Your task to perform on an android device: check battery use Image 0: 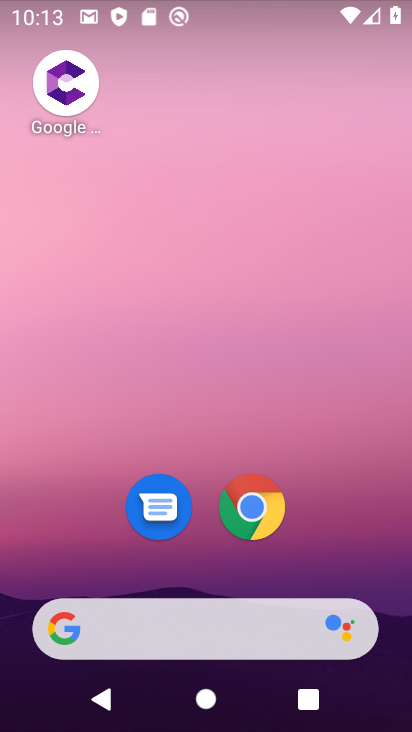
Step 0: drag from (358, 560) to (347, 131)
Your task to perform on an android device: check battery use Image 1: 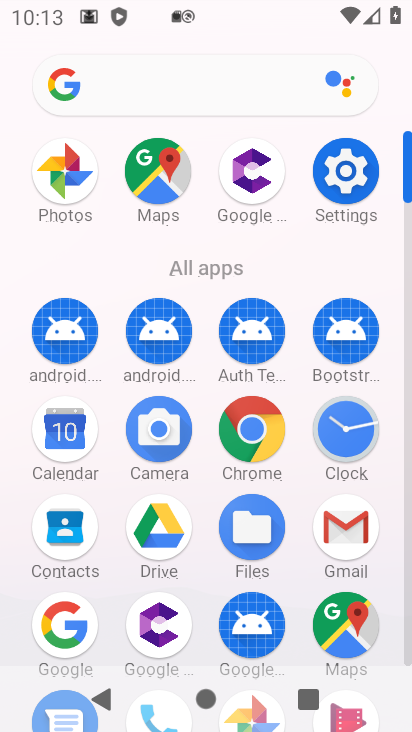
Step 1: click (335, 173)
Your task to perform on an android device: check battery use Image 2: 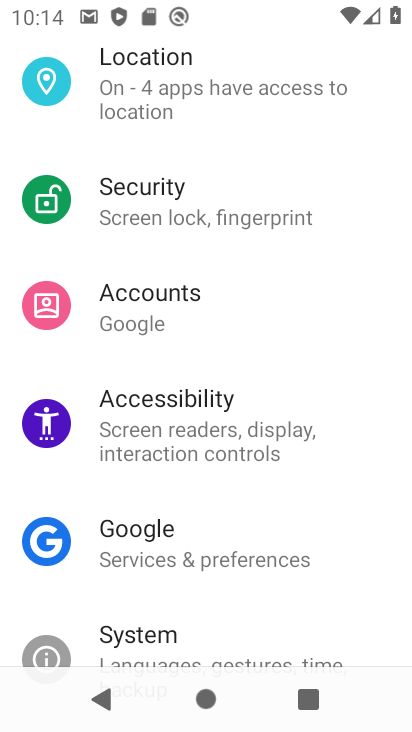
Step 2: drag from (215, 573) to (261, 645)
Your task to perform on an android device: check battery use Image 3: 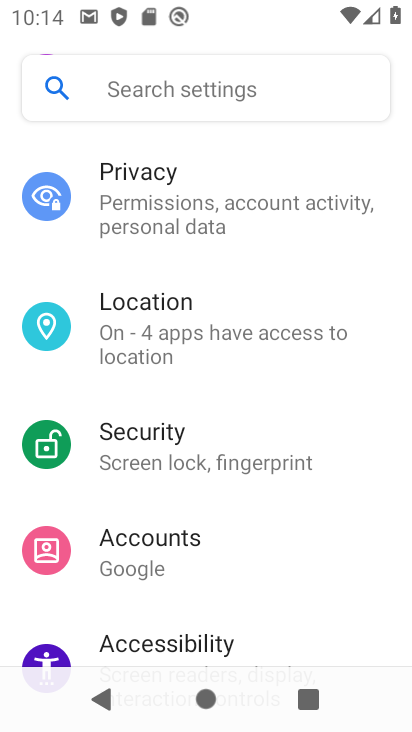
Step 3: drag from (183, 269) to (186, 595)
Your task to perform on an android device: check battery use Image 4: 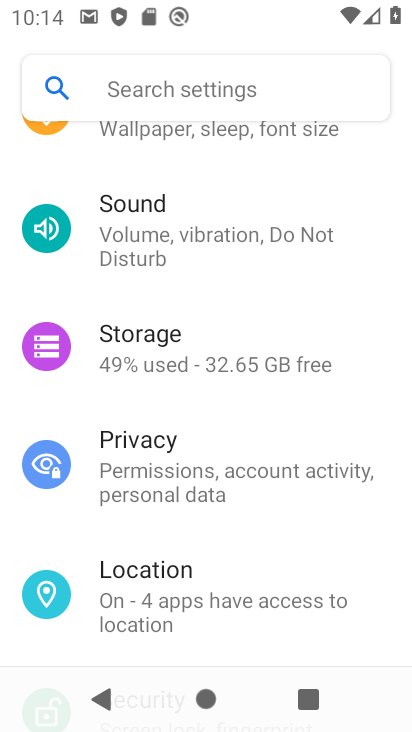
Step 4: drag from (179, 249) to (181, 609)
Your task to perform on an android device: check battery use Image 5: 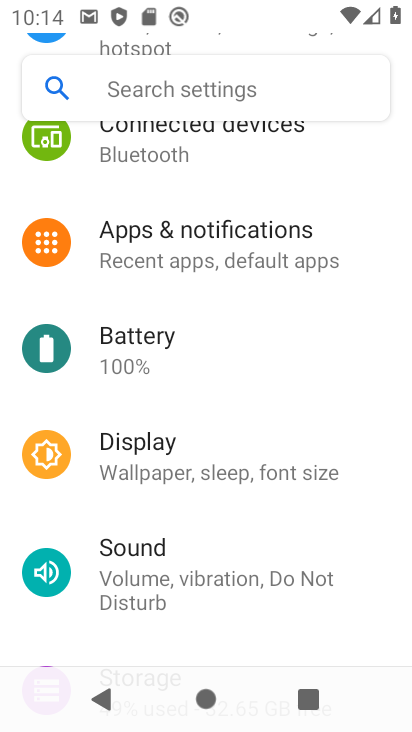
Step 5: click (161, 375)
Your task to perform on an android device: check battery use Image 6: 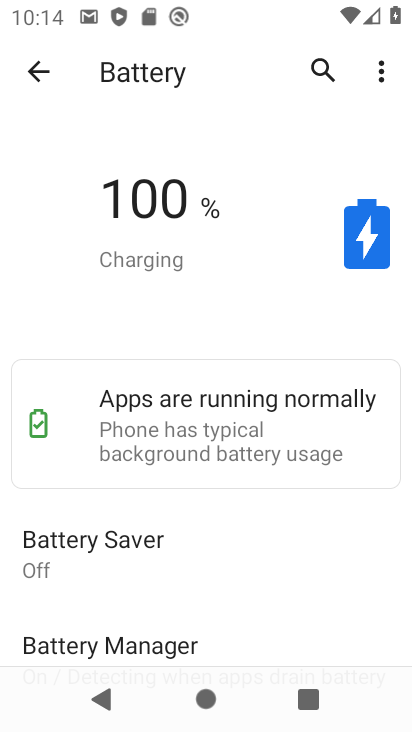
Step 6: task complete